Your task to perform on an android device: toggle wifi Image 0: 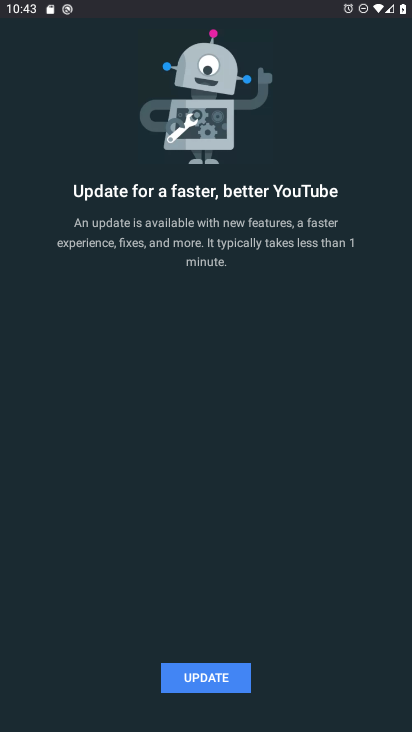
Step 0: press home button
Your task to perform on an android device: toggle wifi Image 1: 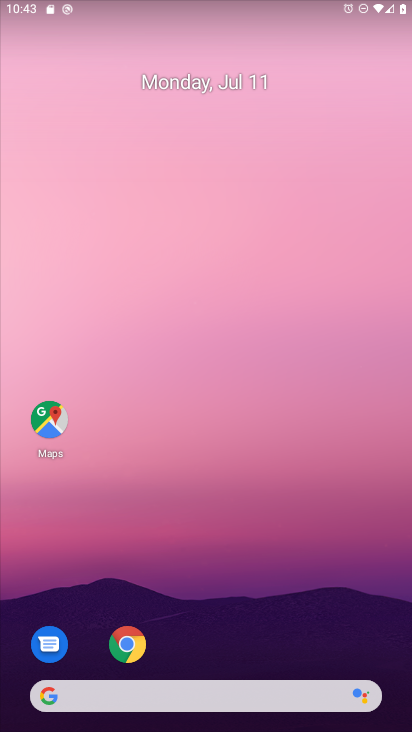
Step 1: drag from (130, 676) to (117, 381)
Your task to perform on an android device: toggle wifi Image 2: 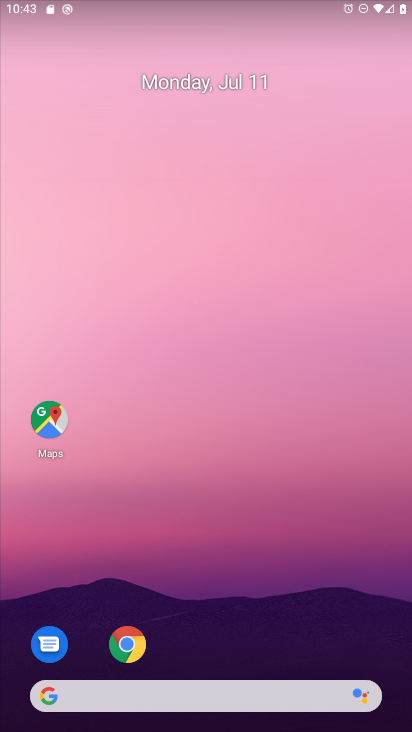
Step 2: drag from (187, 688) to (160, 279)
Your task to perform on an android device: toggle wifi Image 3: 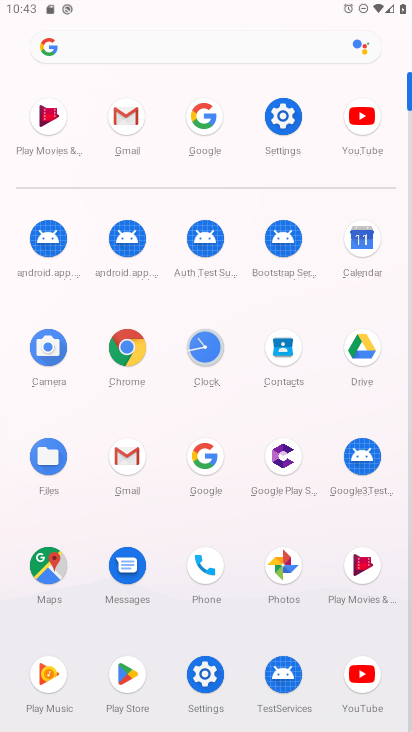
Step 3: click (276, 123)
Your task to perform on an android device: toggle wifi Image 4: 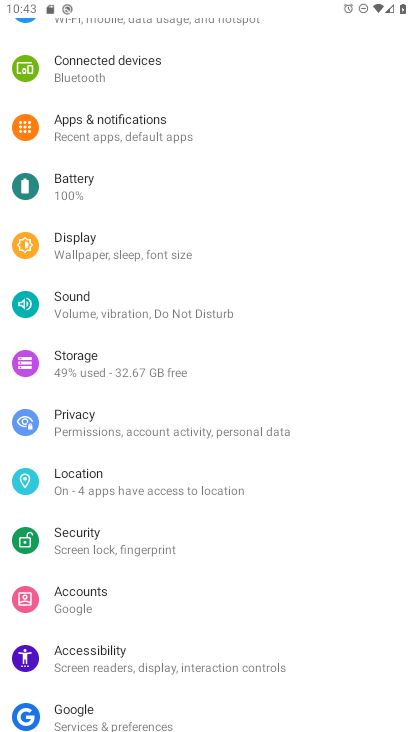
Step 4: drag from (145, 77) to (145, 411)
Your task to perform on an android device: toggle wifi Image 5: 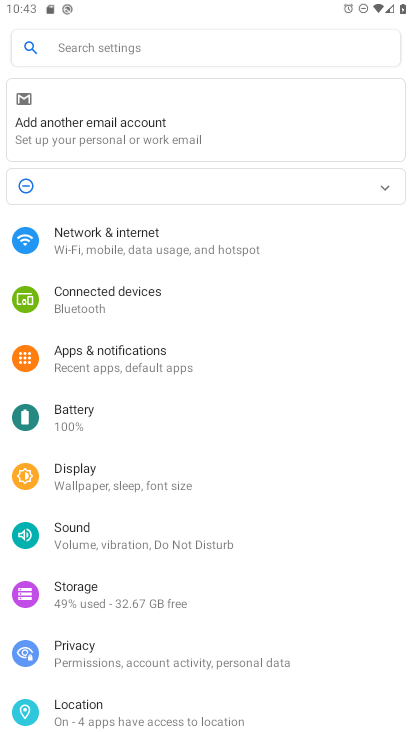
Step 5: click (122, 246)
Your task to perform on an android device: toggle wifi Image 6: 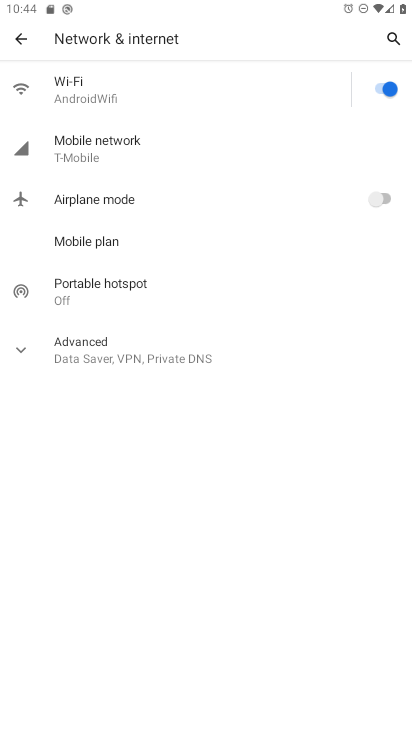
Step 6: click (384, 87)
Your task to perform on an android device: toggle wifi Image 7: 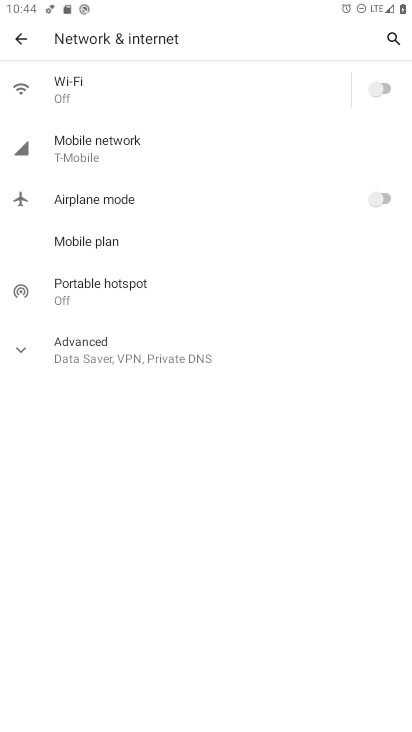
Step 7: task complete